Your task to perform on an android device: turn off improve location accuracy Image 0: 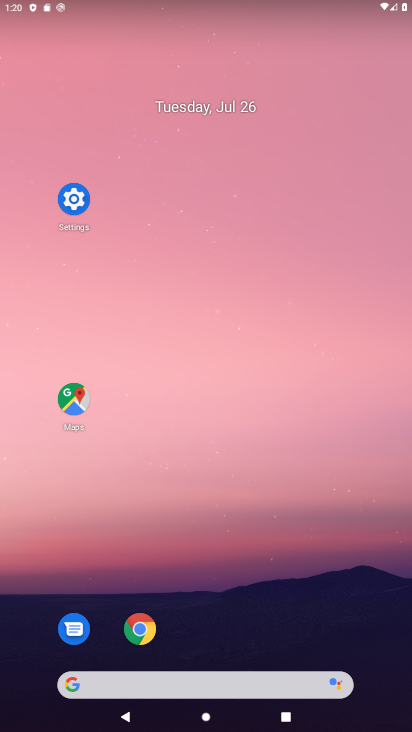
Step 0: click (78, 199)
Your task to perform on an android device: turn off improve location accuracy Image 1: 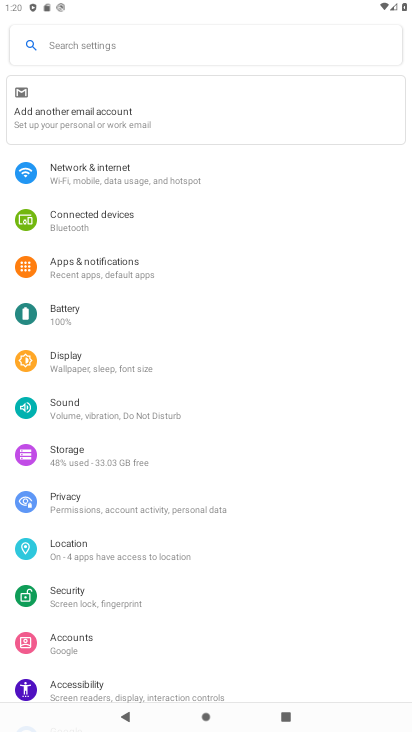
Step 1: click (141, 547)
Your task to perform on an android device: turn off improve location accuracy Image 2: 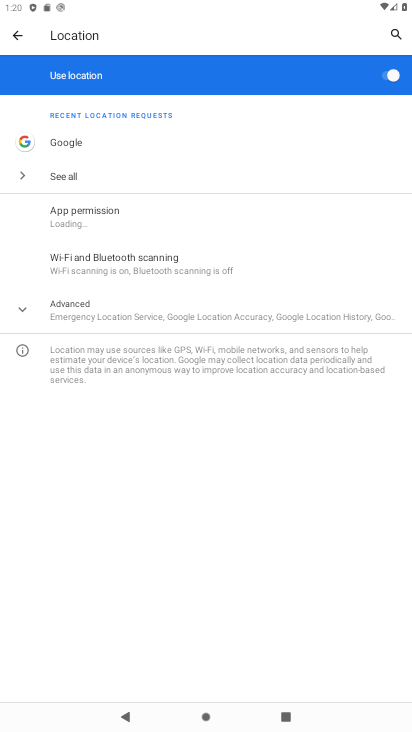
Step 2: click (158, 320)
Your task to perform on an android device: turn off improve location accuracy Image 3: 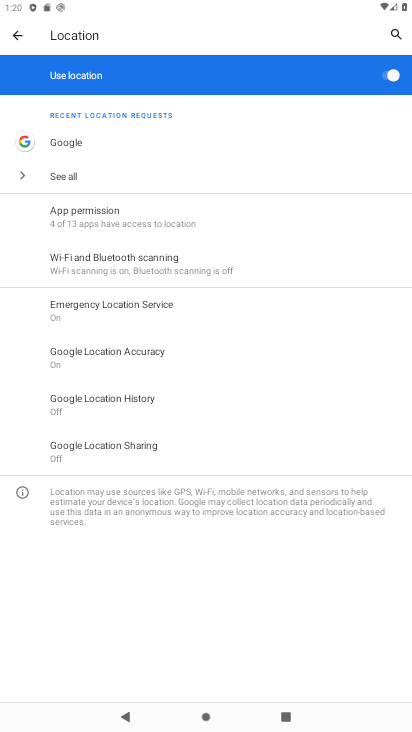
Step 3: click (165, 355)
Your task to perform on an android device: turn off improve location accuracy Image 4: 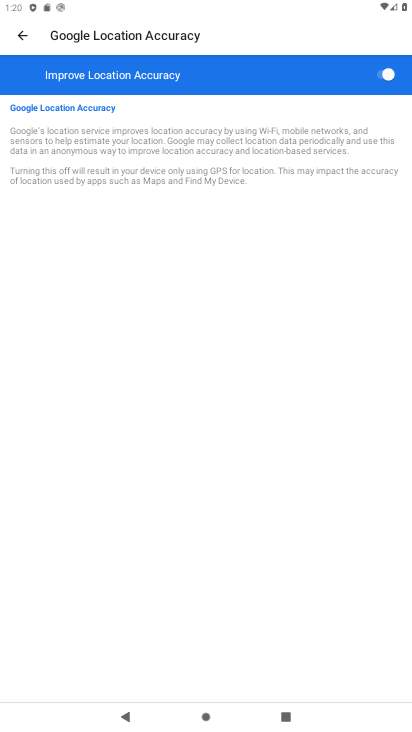
Step 4: click (387, 75)
Your task to perform on an android device: turn off improve location accuracy Image 5: 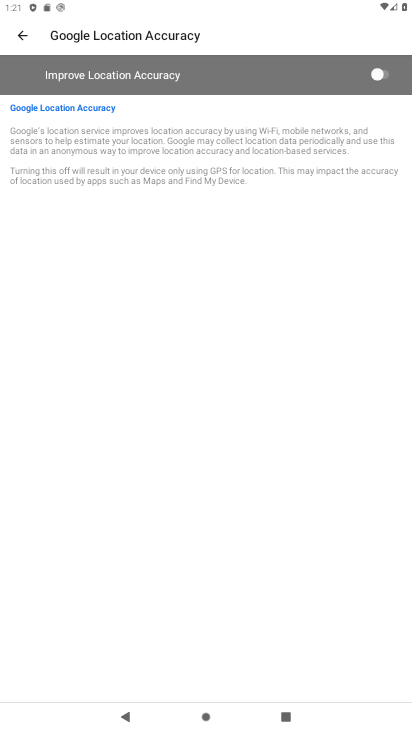
Step 5: task complete